Your task to perform on an android device: Open accessibility settings Image 0: 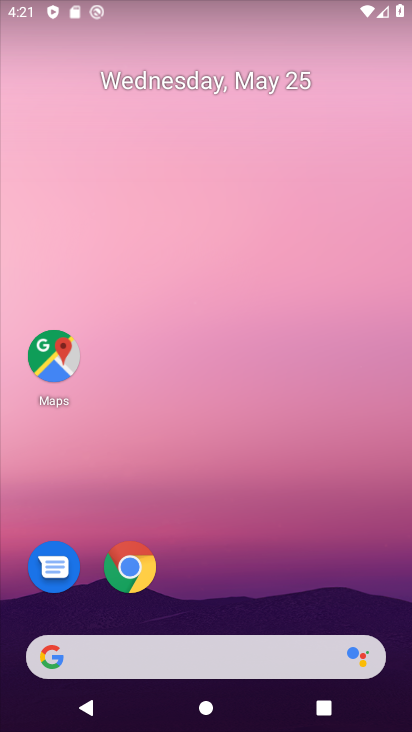
Step 0: drag from (226, 622) to (314, 142)
Your task to perform on an android device: Open accessibility settings Image 1: 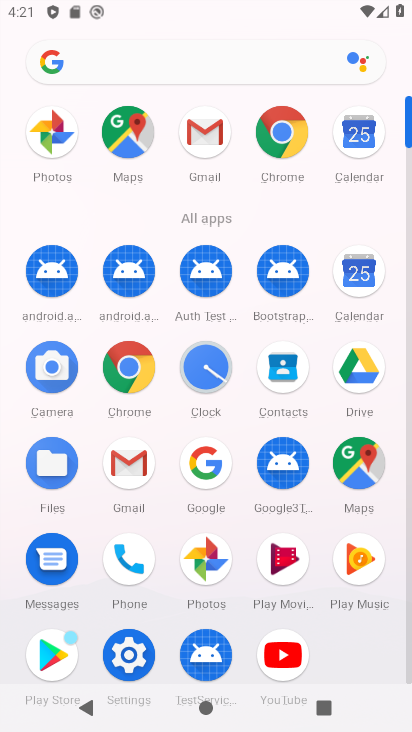
Step 1: click (127, 676)
Your task to perform on an android device: Open accessibility settings Image 2: 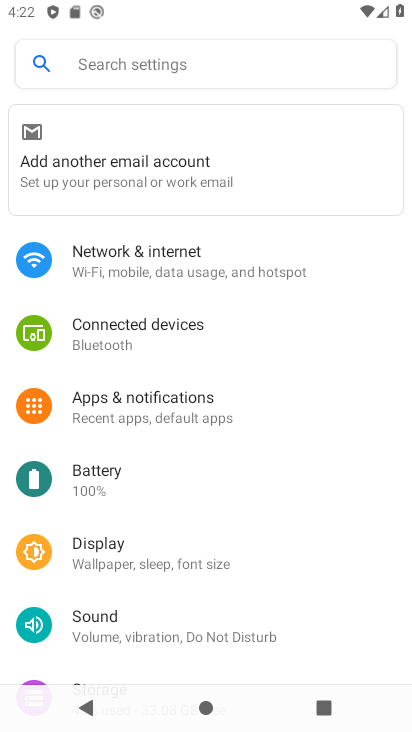
Step 2: drag from (177, 633) to (297, 123)
Your task to perform on an android device: Open accessibility settings Image 3: 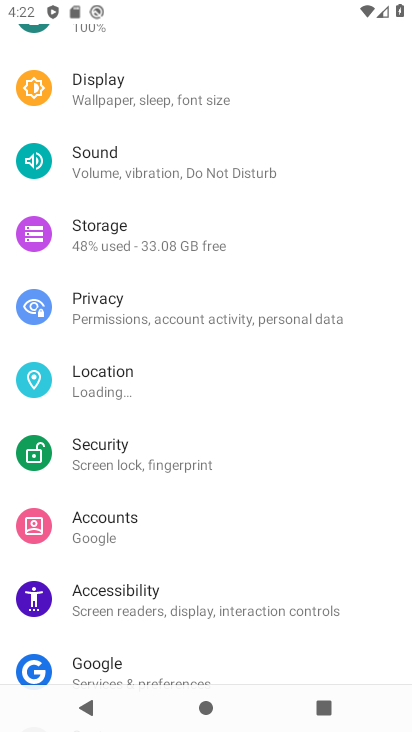
Step 3: drag from (225, 585) to (297, 256)
Your task to perform on an android device: Open accessibility settings Image 4: 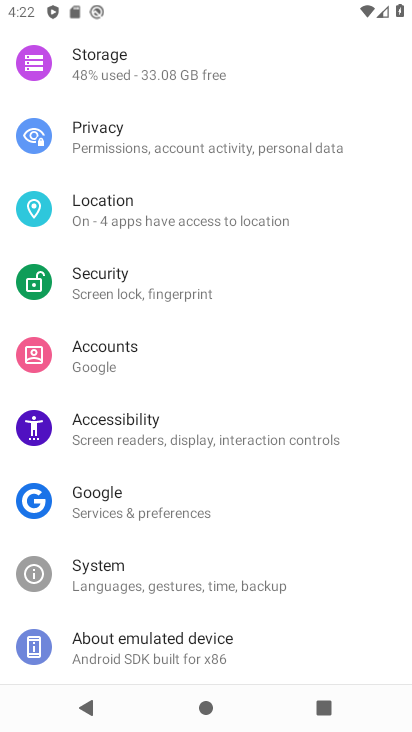
Step 4: click (159, 440)
Your task to perform on an android device: Open accessibility settings Image 5: 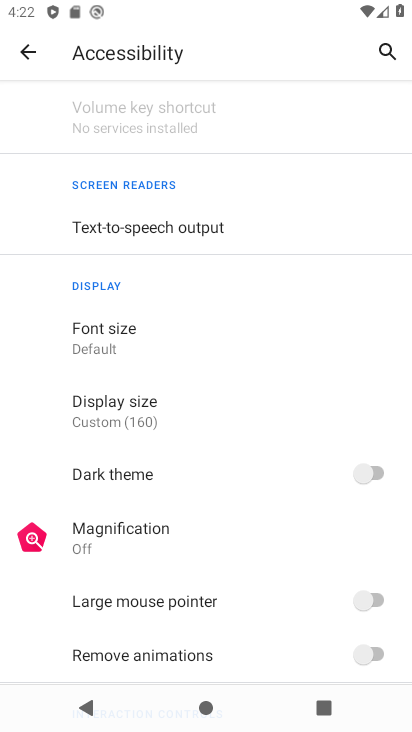
Step 5: task complete